Your task to perform on an android device: Open the Play Movies app and select the watchlist tab. Image 0: 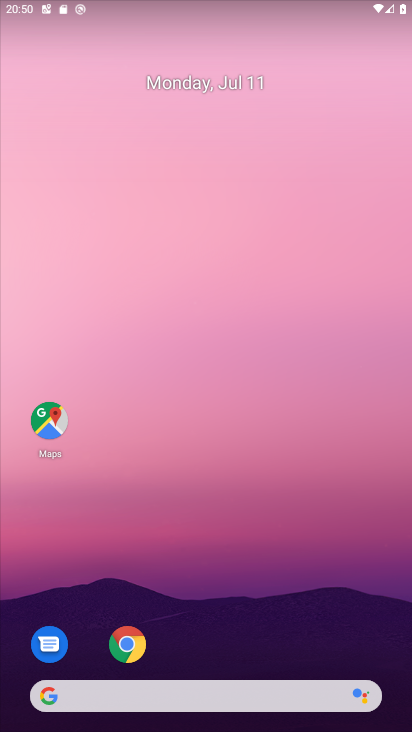
Step 0: drag from (215, 641) to (218, 348)
Your task to perform on an android device: Open the Play Movies app and select the watchlist tab. Image 1: 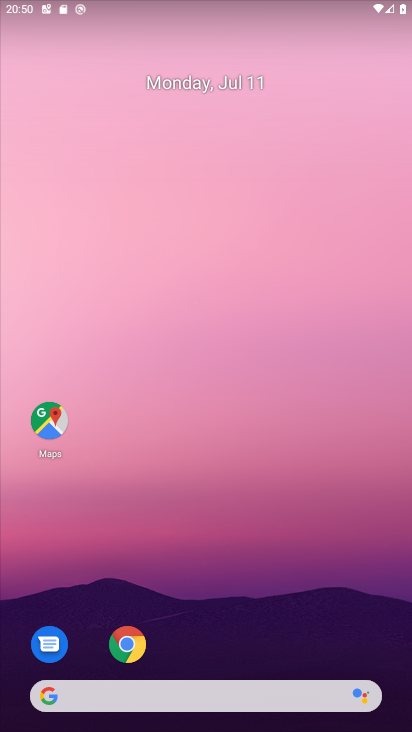
Step 1: drag from (188, 659) to (202, 68)
Your task to perform on an android device: Open the Play Movies app and select the watchlist tab. Image 2: 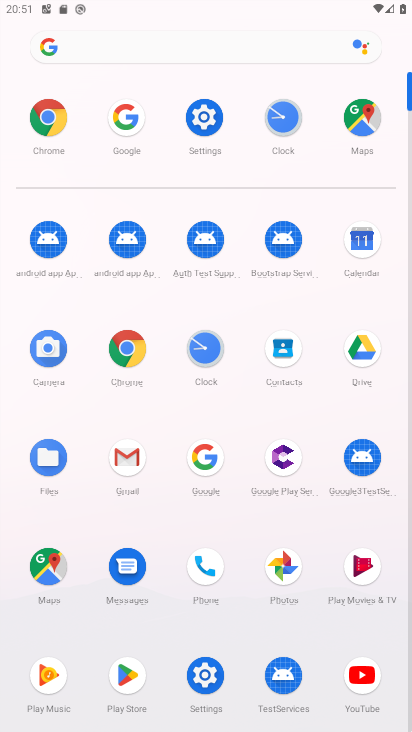
Step 2: click (370, 559)
Your task to perform on an android device: Open the Play Movies app and select the watchlist tab. Image 3: 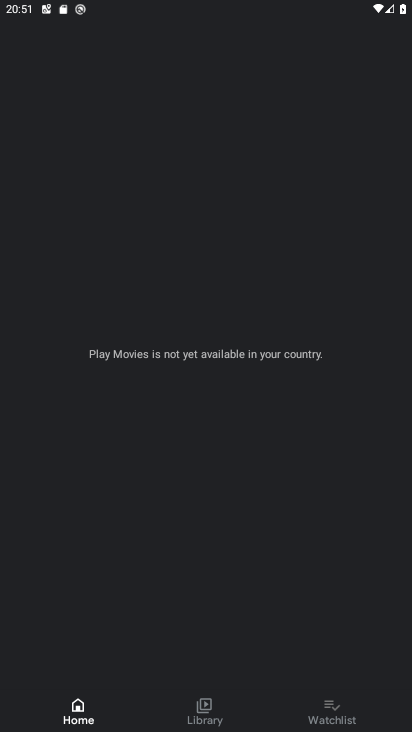
Step 3: click (323, 700)
Your task to perform on an android device: Open the Play Movies app and select the watchlist tab. Image 4: 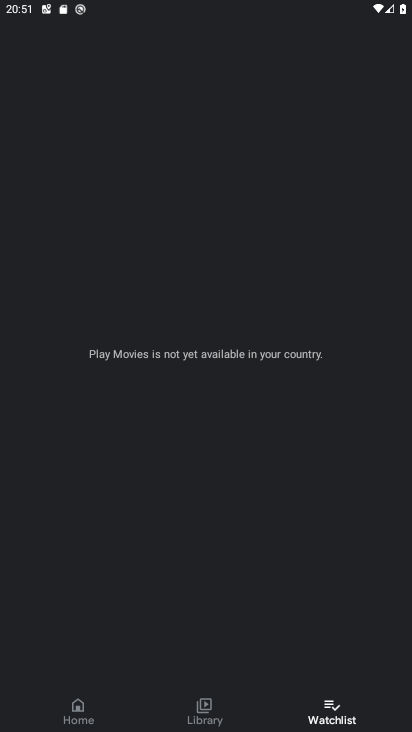
Step 4: task complete